Your task to perform on an android device: Open location settings Image 0: 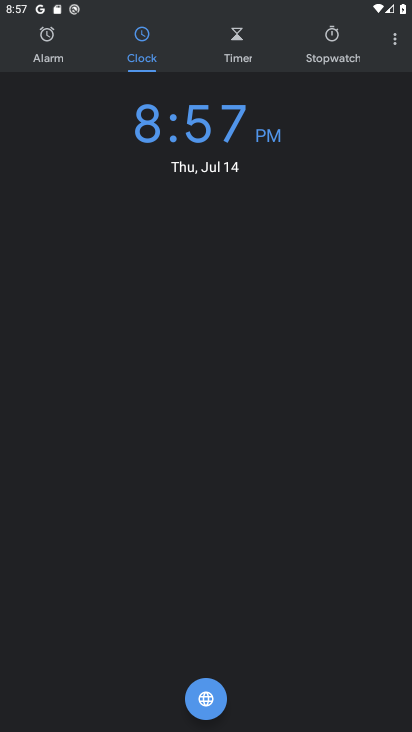
Step 0: press home button
Your task to perform on an android device: Open location settings Image 1: 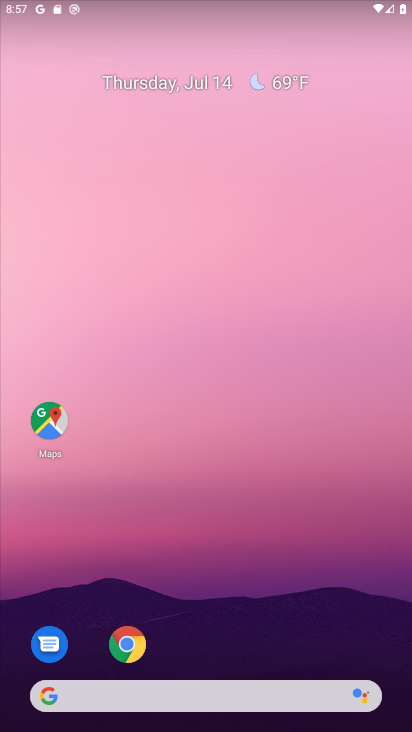
Step 1: drag from (212, 641) to (173, 279)
Your task to perform on an android device: Open location settings Image 2: 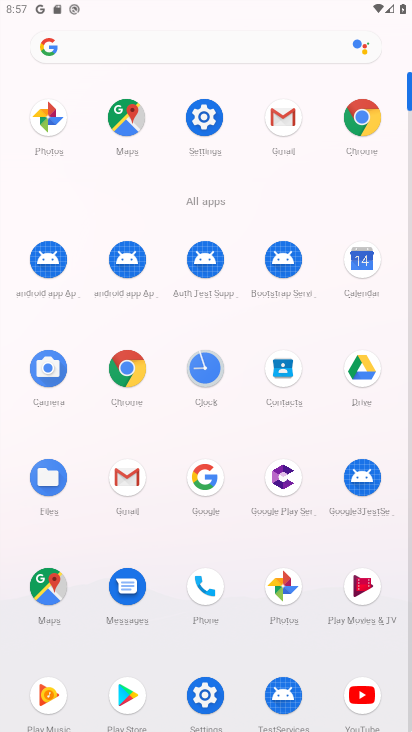
Step 2: click (214, 99)
Your task to perform on an android device: Open location settings Image 3: 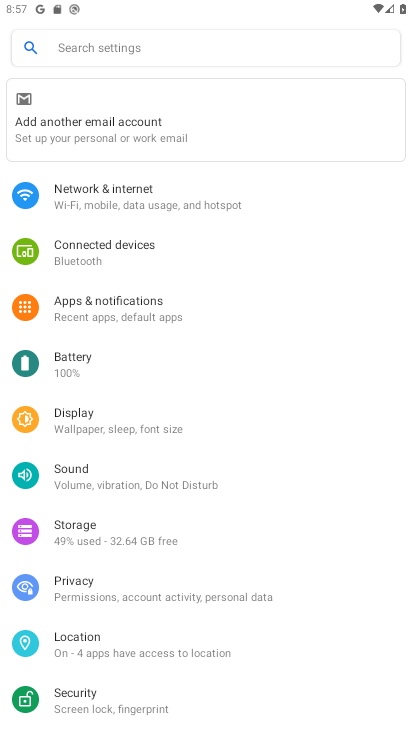
Step 3: click (154, 637)
Your task to perform on an android device: Open location settings Image 4: 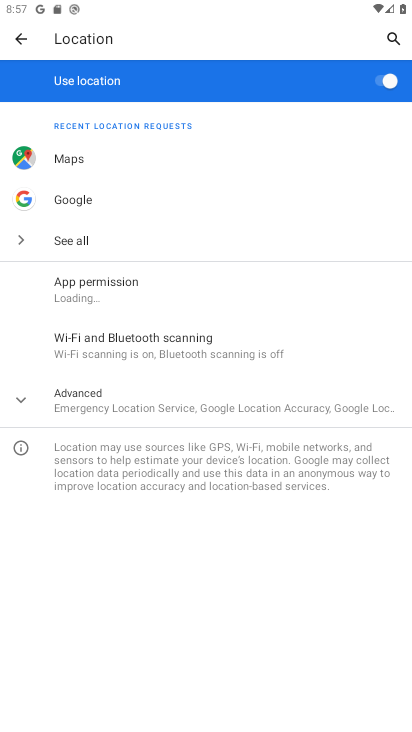
Step 4: task complete